Your task to perform on an android device: Show me productivity apps on the Play Store Image 0: 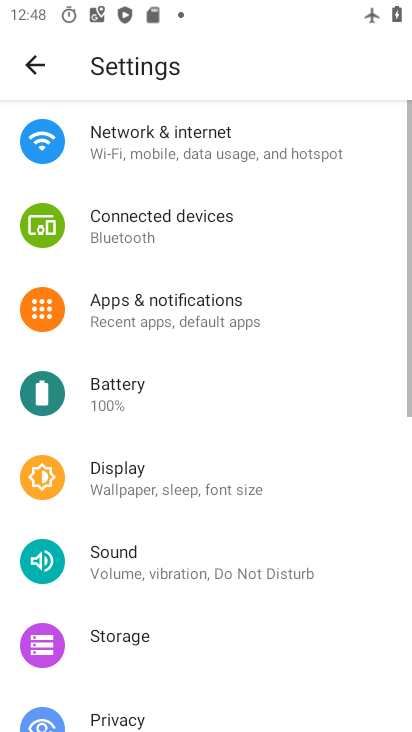
Step 0: drag from (339, 472) to (284, 27)
Your task to perform on an android device: Show me productivity apps on the Play Store Image 1: 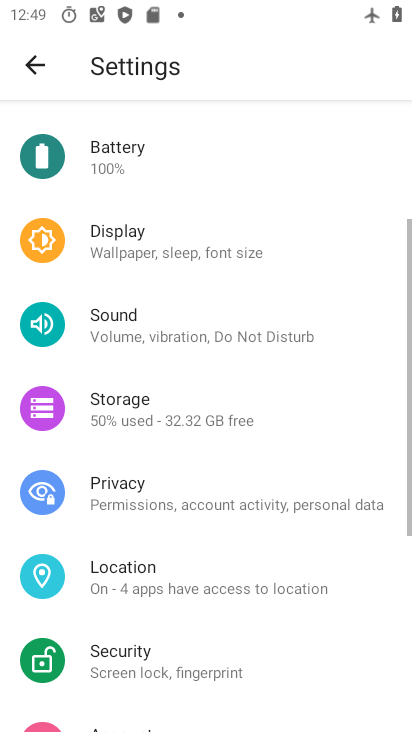
Step 1: drag from (217, 561) to (229, 49)
Your task to perform on an android device: Show me productivity apps on the Play Store Image 2: 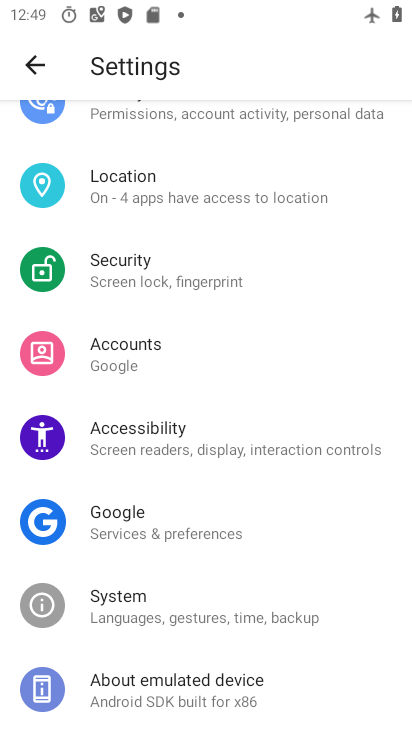
Step 2: press home button
Your task to perform on an android device: Show me productivity apps on the Play Store Image 3: 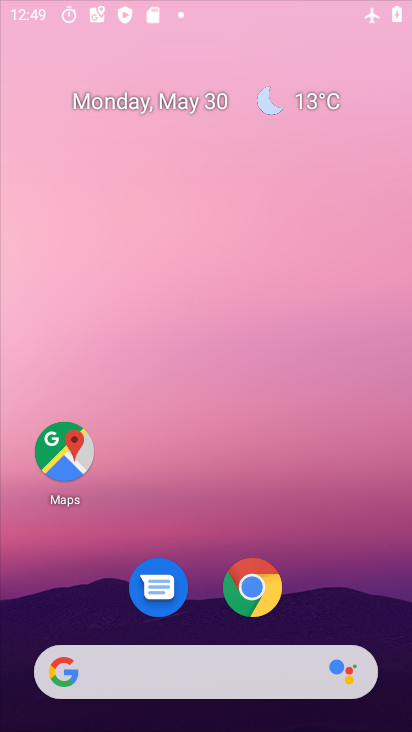
Step 3: press home button
Your task to perform on an android device: Show me productivity apps on the Play Store Image 4: 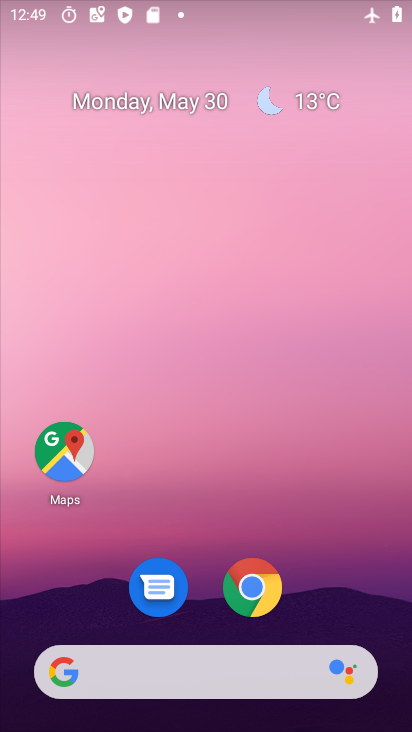
Step 4: press home button
Your task to perform on an android device: Show me productivity apps on the Play Store Image 5: 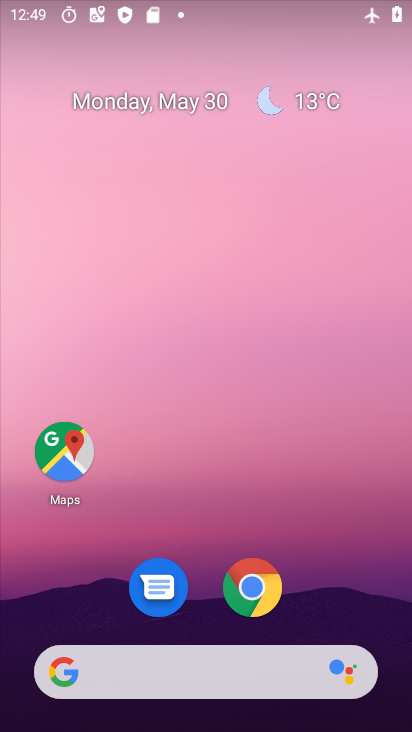
Step 5: drag from (344, 573) to (324, 13)
Your task to perform on an android device: Show me productivity apps on the Play Store Image 6: 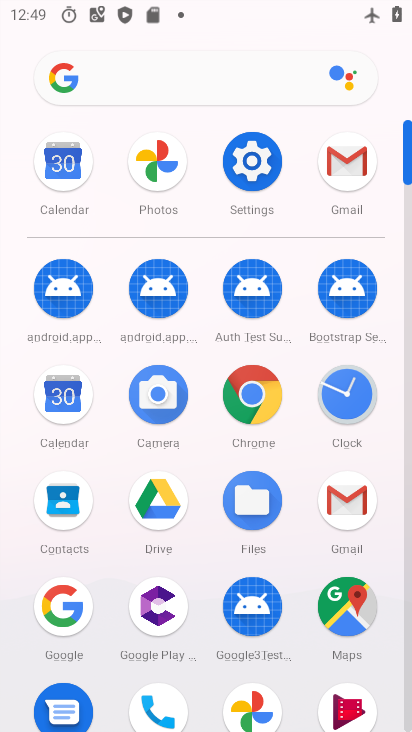
Step 6: drag from (295, 588) to (262, 101)
Your task to perform on an android device: Show me productivity apps on the Play Store Image 7: 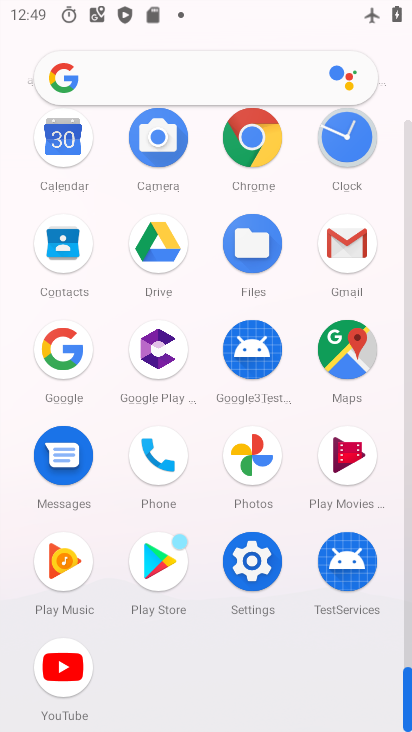
Step 7: click (158, 561)
Your task to perform on an android device: Show me productivity apps on the Play Store Image 8: 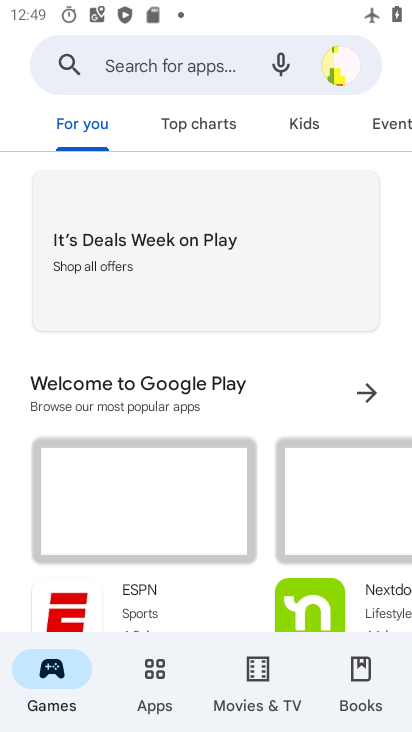
Step 8: drag from (225, 236) to (274, 730)
Your task to perform on an android device: Show me productivity apps on the Play Store Image 9: 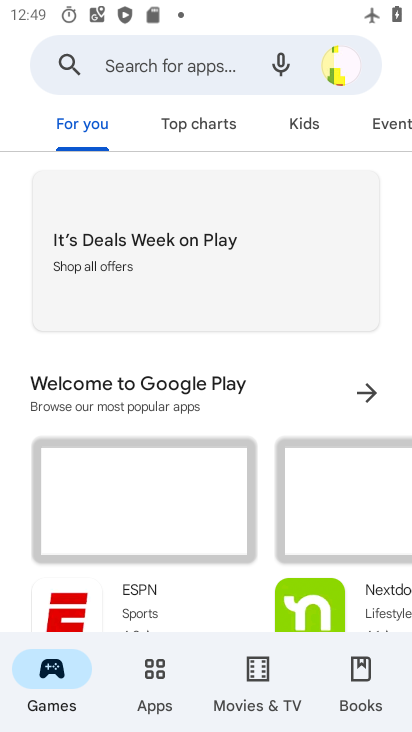
Step 9: drag from (196, 247) to (239, 730)
Your task to perform on an android device: Show me productivity apps on the Play Store Image 10: 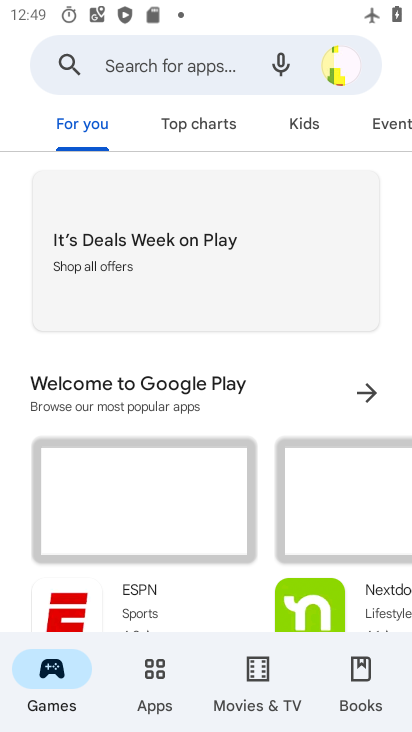
Step 10: drag from (222, 434) to (245, 170)
Your task to perform on an android device: Show me productivity apps on the Play Store Image 11: 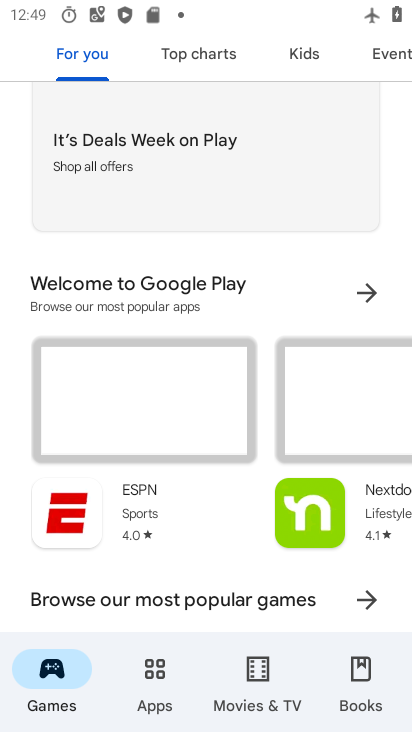
Step 11: click (167, 632)
Your task to perform on an android device: Show me productivity apps on the Play Store Image 12: 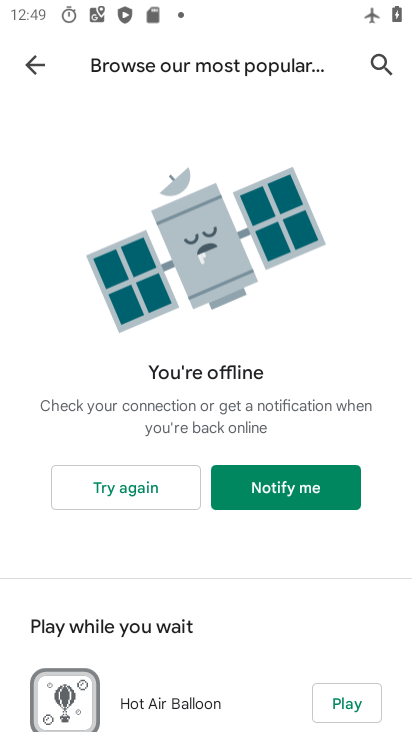
Step 12: click (168, 664)
Your task to perform on an android device: Show me productivity apps on the Play Store Image 13: 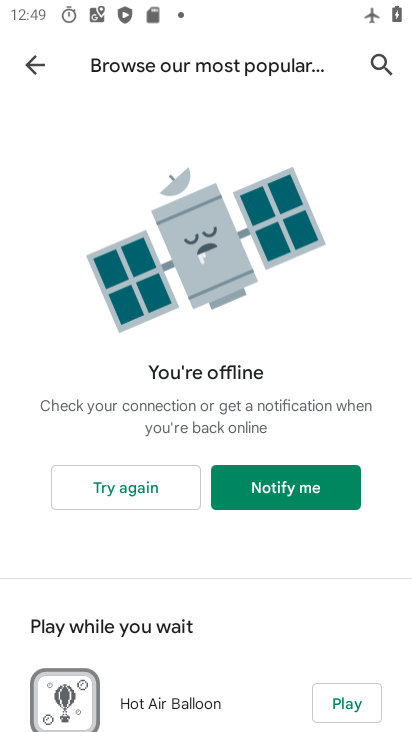
Step 13: click (24, 59)
Your task to perform on an android device: Show me productivity apps on the Play Store Image 14: 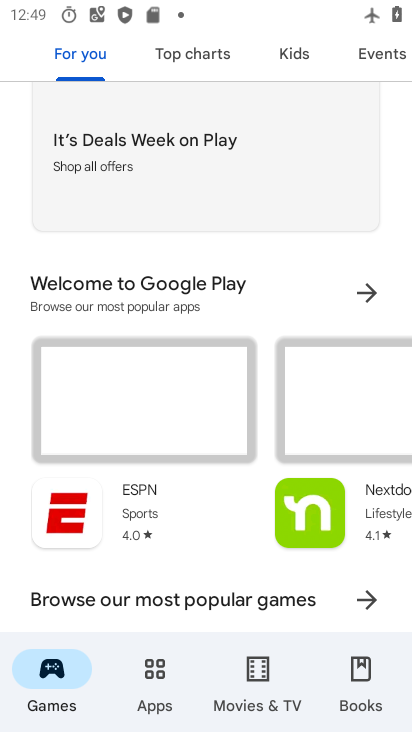
Step 14: click (157, 661)
Your task to perform on an android device: Show me productivity apps on the Play Store Image 15: 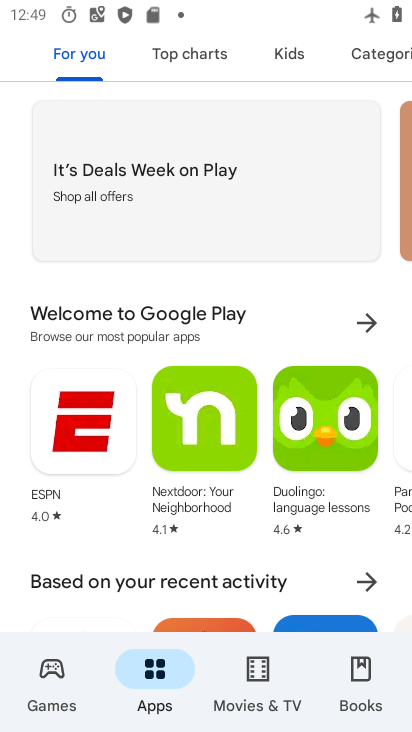
Step 15: task complete